Your task to perform on an android device: Go to Google Image 0: 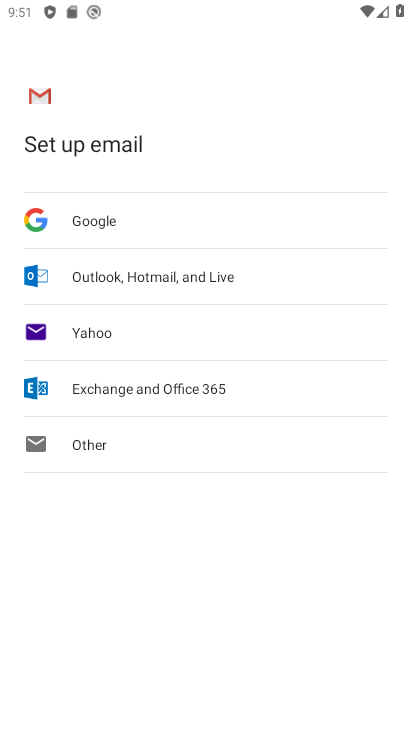
Step 0: press back button
Your task to perform on an android device: Go to Google Image 1: 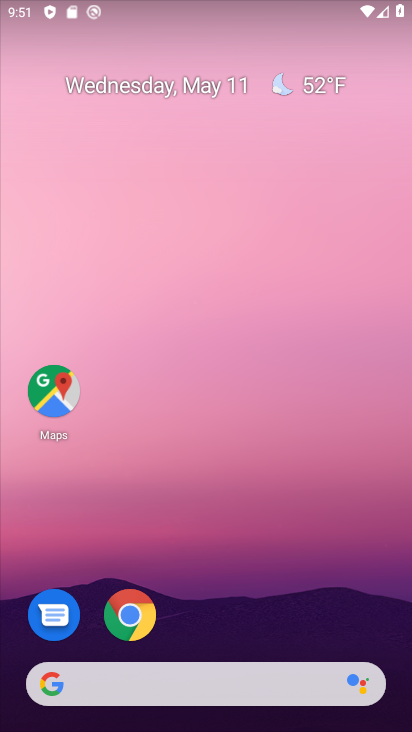
Step 1: drag from (243, 568) to (150, 103)
Your task to perform on an android device: Go to Google Image 2: 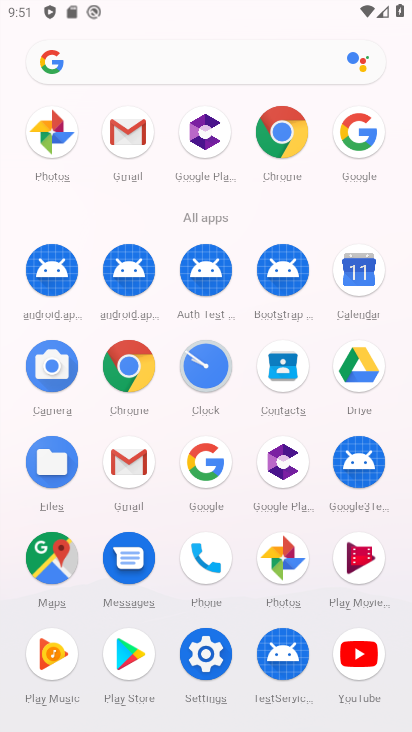
Step 2: click (354, 133)
Your task to perform on an android device: Go to Google Image 3: 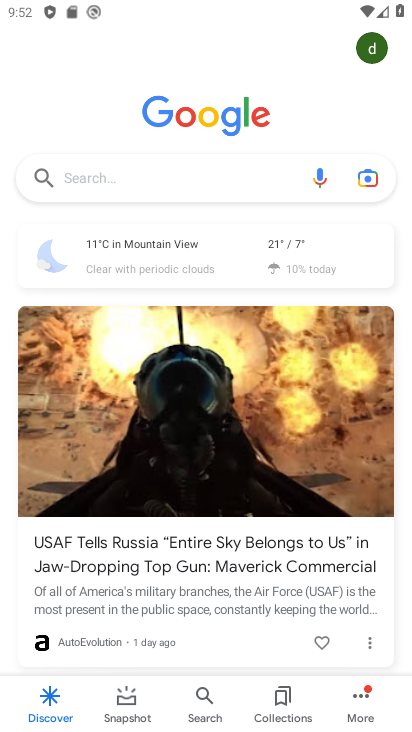
Step 3: task complete